Your task to perform on an android device: star an email in the gmail app Image 0: 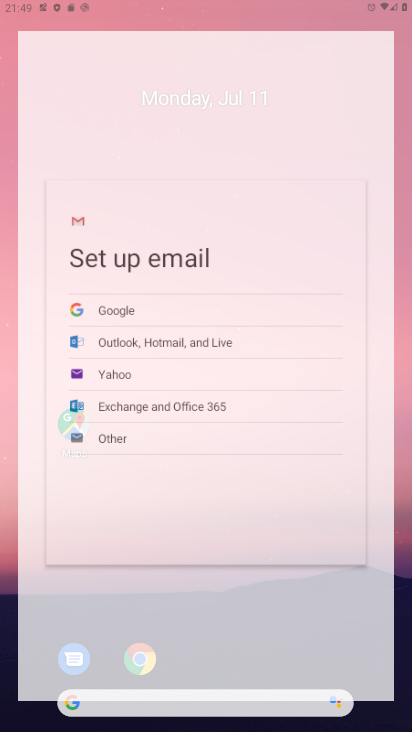
Step 0: drag from (228, 392) to (208, 729)
Your task to perform on an android device: star an email in the gmail app Image 1: 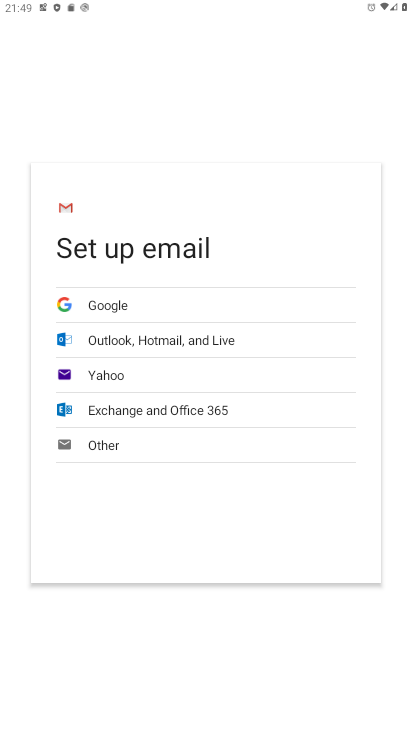
Step 1: drag from (310, 606) to (322, 209)
Your task to perform on an android device: star an email in the gmail app Image 2: 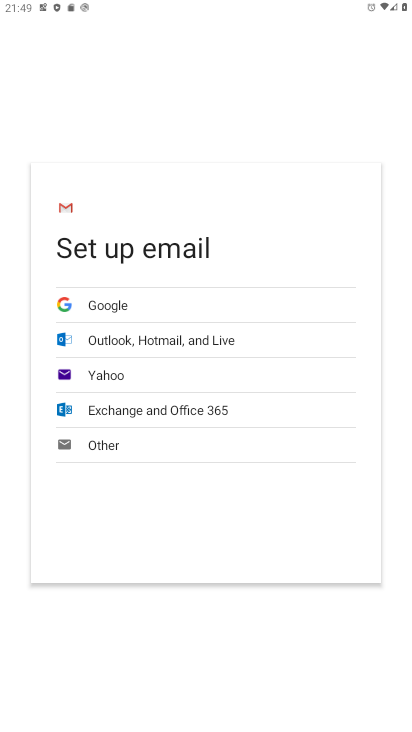
Step 2: drag from (207, 632) to (294, 332)
Your task to perform on an android device: star an email in the gmail app Image 3: 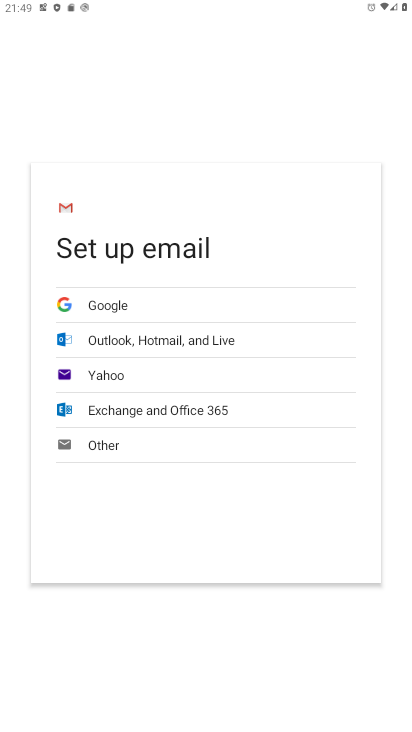
Step 3: drag from (206, 627) to (234, 394)
Your task to perform on an android device: star an email in the gmail app Image 4: 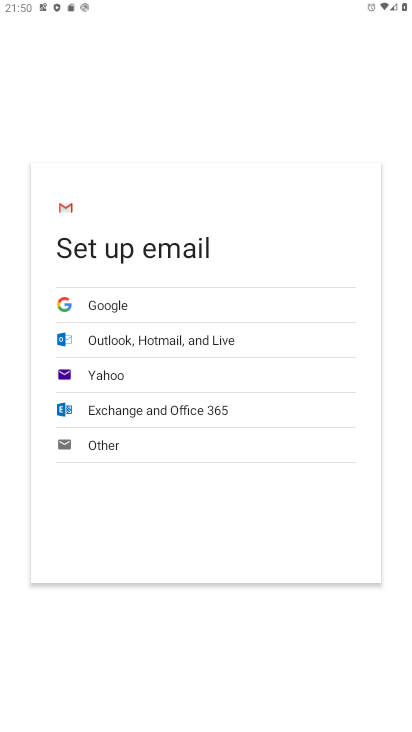
Step 4: press home button
Your task to perform on an android device: star an email in the gmail app Image 5: 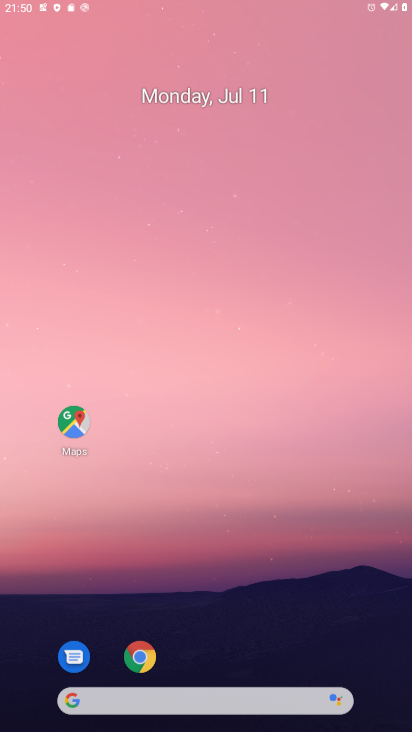
Step 5: drag from (206, 520) to (251, 27)
Your task to perform on an android device: star an email in the gmail app Image 6: 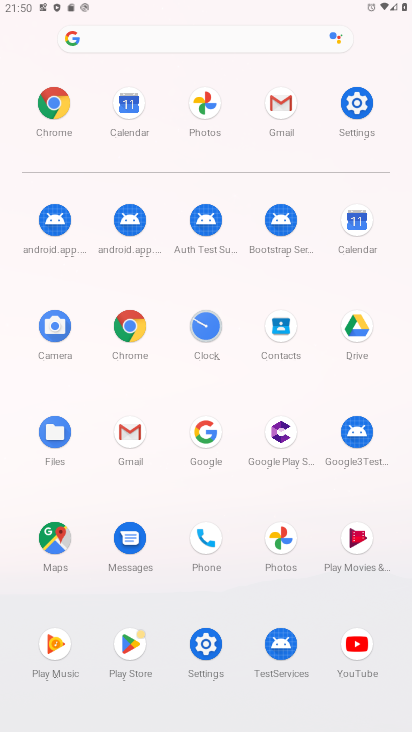
Step 6: click (271, 95)
Your task to perform on an android device: star an email in the gmail app Image 7: 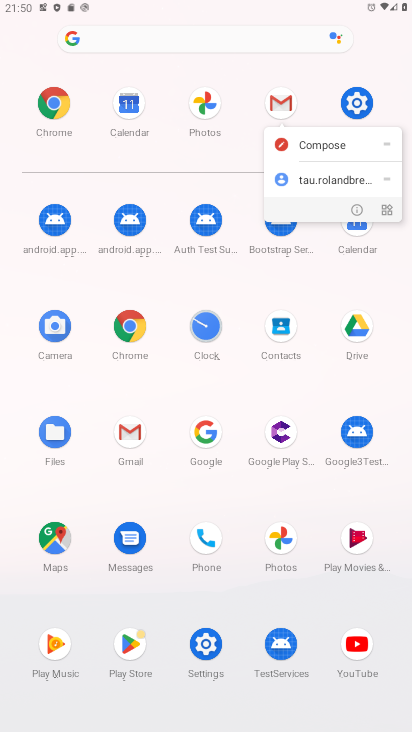
Step 7: click (355, 206)
Your task to perform on an android device: star an email in the gmail app Image 8: 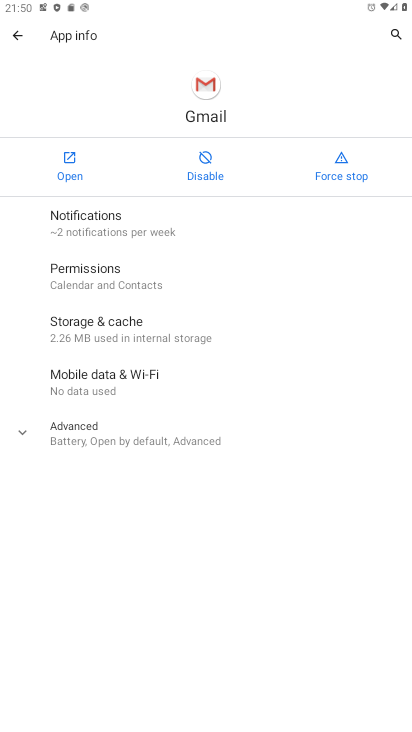
Step 8: click (73, 158)
Your task to perform on an android device: star an email in the gmail app Image 9: 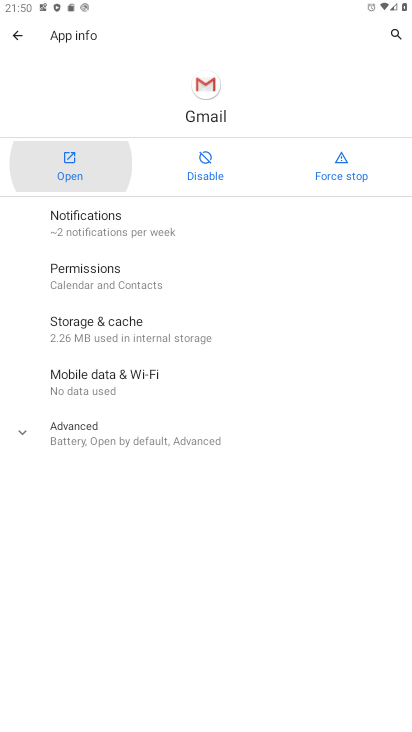
Step 9: click (69, 159)
Your task to perform on an android device: star an email in the gmail app Image 10: 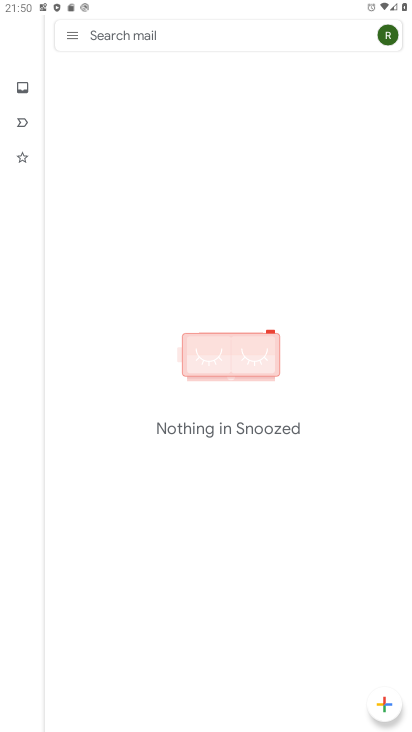
Step 10: click (68, 40)
Your task to perform on an android device: star an email in the gmail app Image 11: 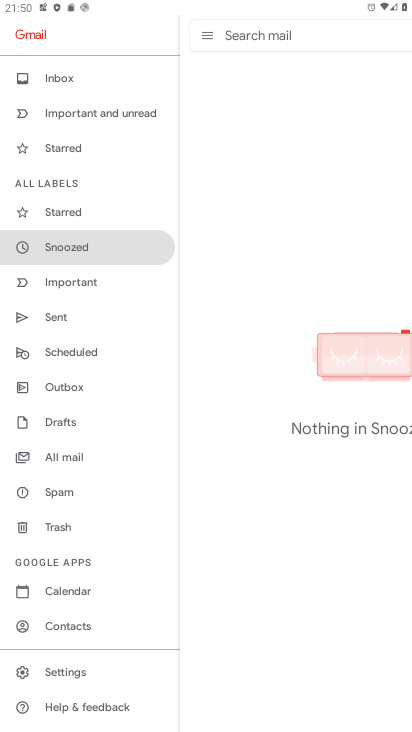
Step 11: click (78, 144)
Your task to perform on an android device: star an email in the gmail app Image 12: 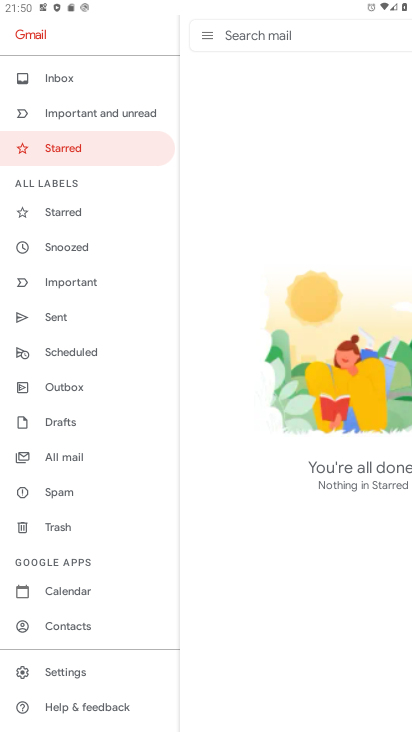
Step 12: drag from (293, 352) to (240, 0)
Your task to perform on an android device: star an email in the gmail app Image 13: 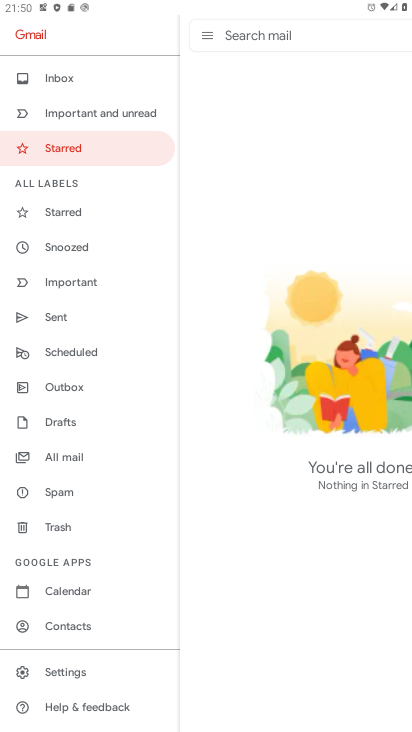
Step 13: click (199, 38)
Your task to perform on an android device: star an email in the gmail app Image 14: 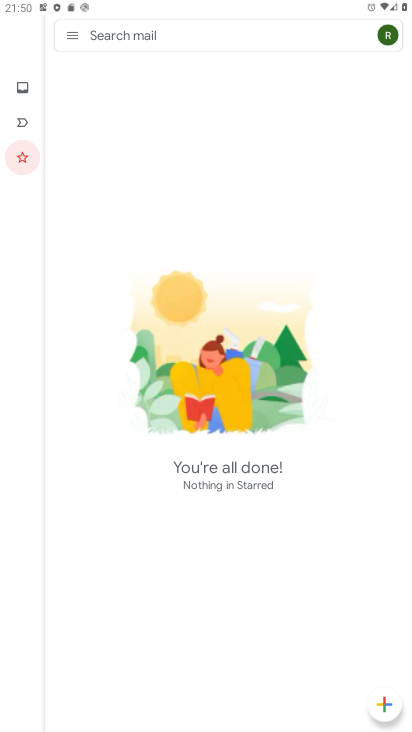
Step 14: task complete